Your task to perform on an android device: Go to location settings Image 0: 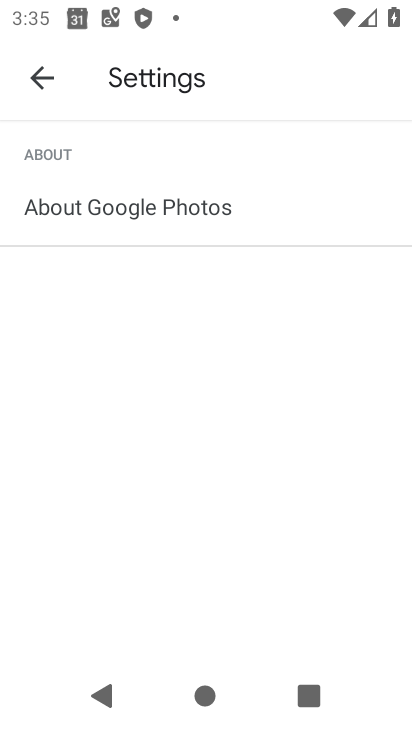
Step 0: press home button
Your task to perform on an android device: Go to location settings Image 1: 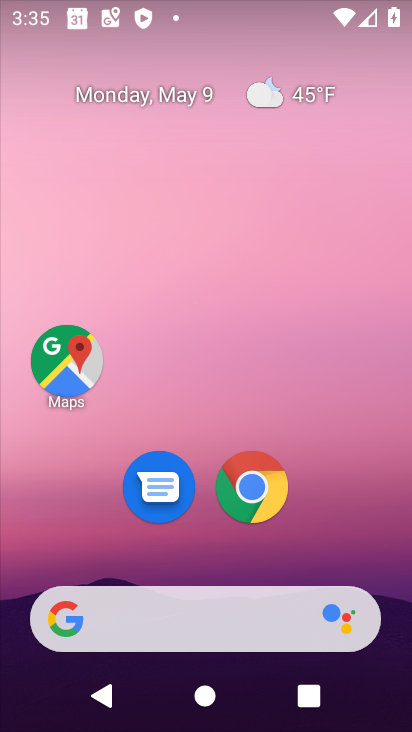
Step 1: drag from (218, 555) to (264, 185)
Your task to perform on an android device: Go to location settings Image 2: 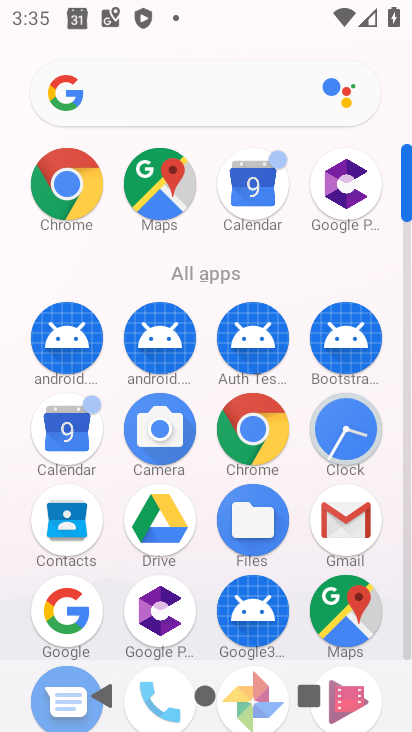
Step 2: drag from (192, 652) to (213, 245)
Your task to perform on an android device: Go to location settings Image 3: 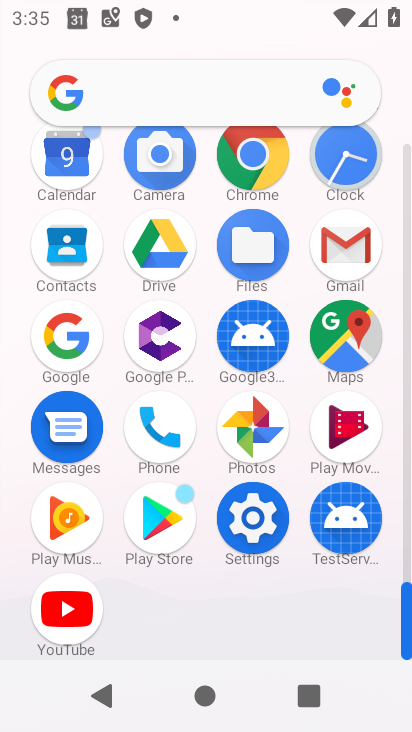
Step 3: click (249, 518)
Your task to perform on an android device: Go to location settings Image 4: 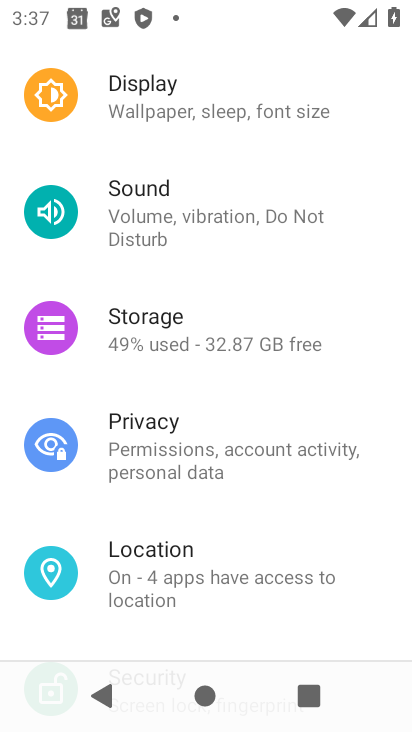
Step 4: click (148, 572)
Your task to perform on an android device: Go to location settings Image 5: 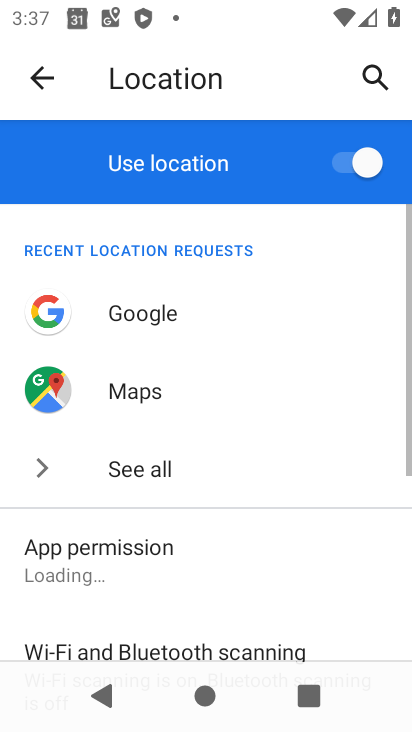
Step 5: task complete